Your task to perform on an android device: toggle translation in the chrome app Image 0: 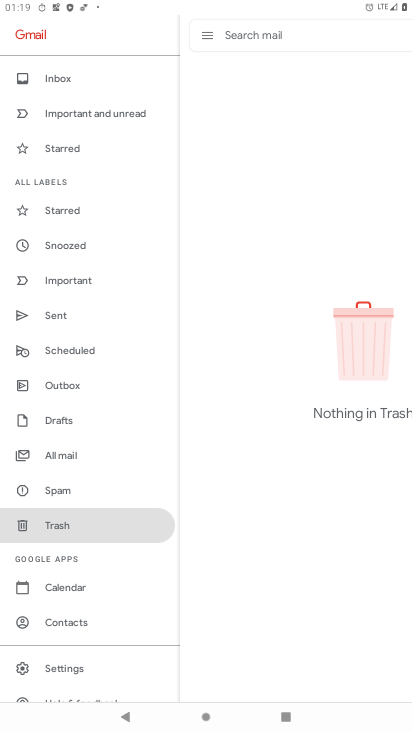
Step 0: press home button
Your task to perform on an android device: toggle translation in the chrome app Image 1: 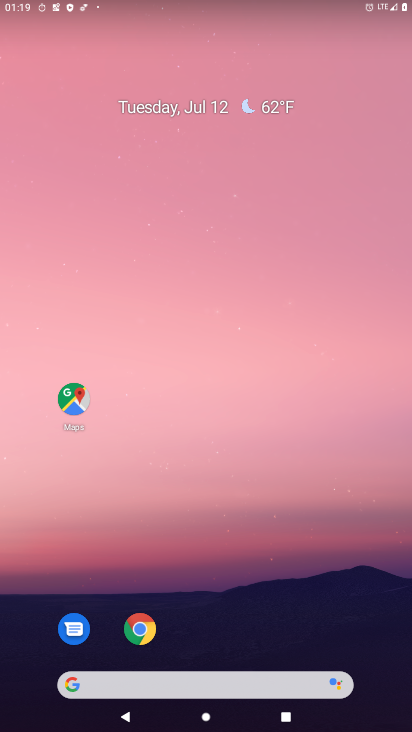
Step 1: drag from (167, 630) to (174, 15)
Your task to perform on an android device: toggle translation in the chrome app Image 2: 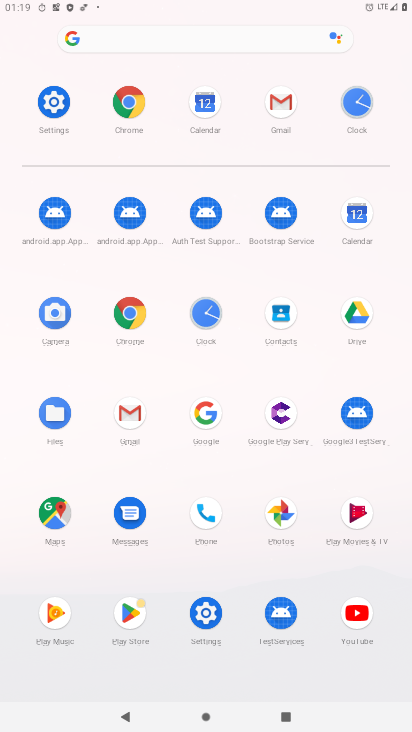
Step 2: click (125, 315)
Your task to perform on an android device: toggle translation in the chrome app Image 3: 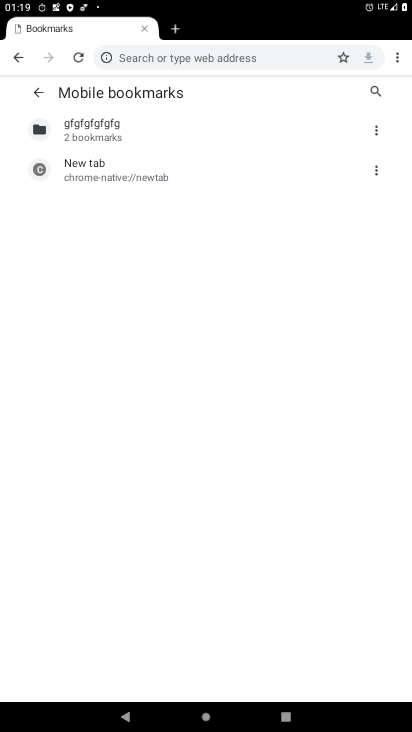
Step 3: drag from (398, 61) to (292, 266)
Your task to perform on an android device: toggle translation in the chrome app Image 4: 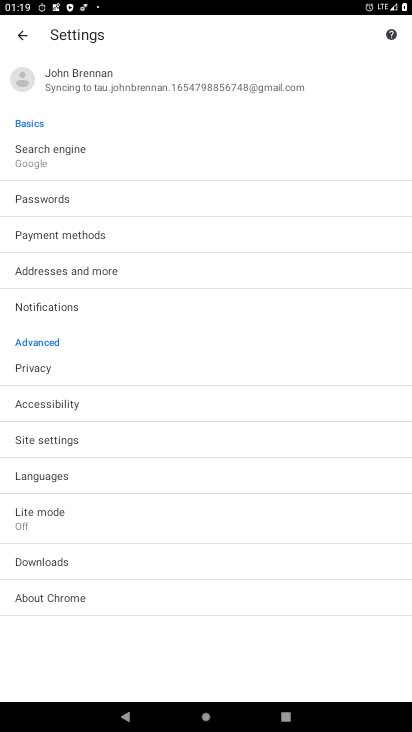
Step 4: click (45, 474)
Your task to perform on an android device: toggle translation in the chrome app Image 5: 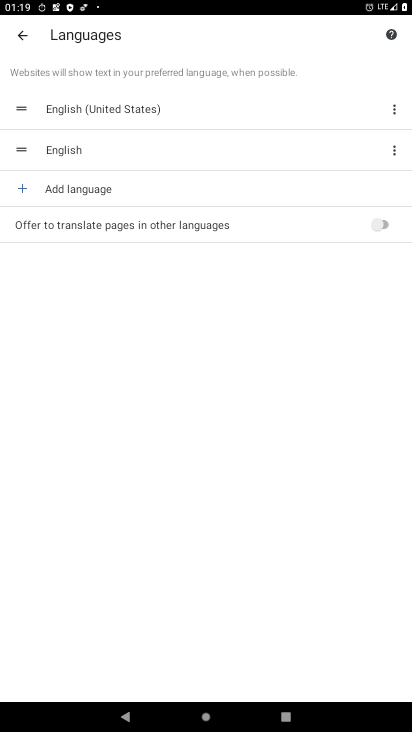
Step 5: click (379, 222)
Your task to perform on an android device: toggle translation in the chrome app Image 6: 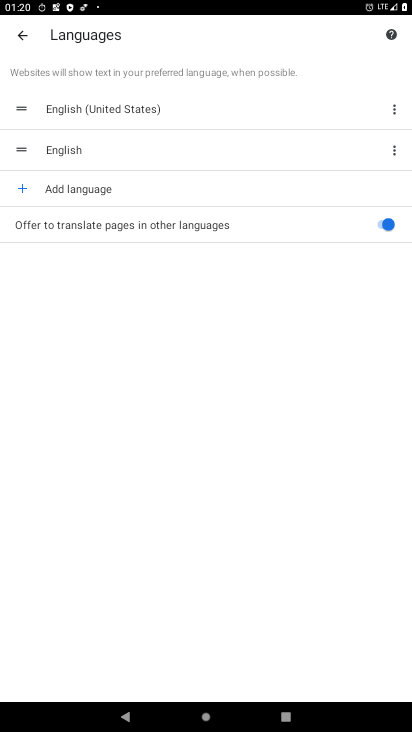
Step 6: task complete